Your task to perform on an android device: Clear the shopping cart on bestbuy.com. Search for "razer huntsman" on bestbuy.com, select the first entry, add it to the cart, then select checkout. Image 0: 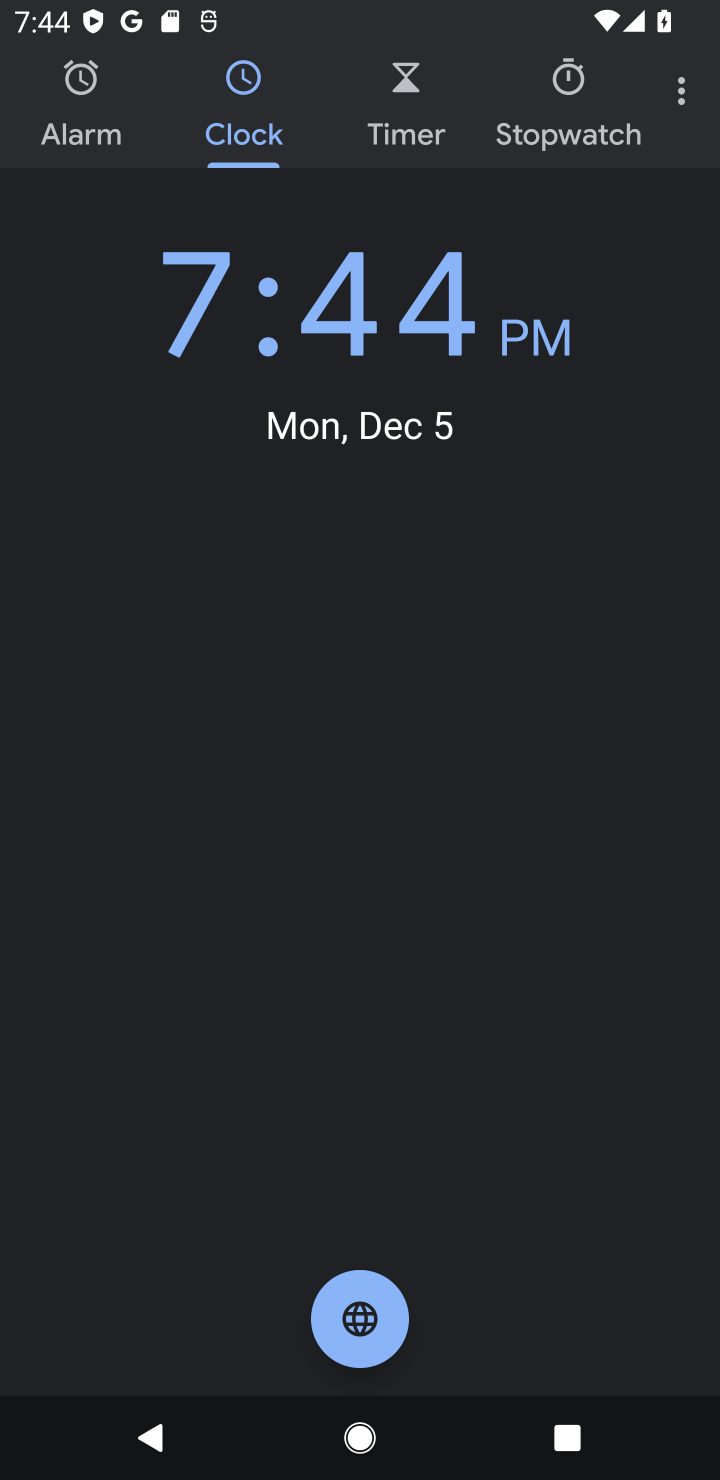
Step 0: press home button
Your task to perform on an android device: Clear the shopping cart on bestbuy.com. Search for "razer huntsman" on bestbuy.com, select the first entry, add it to the cart, then select checkout. Image 1: 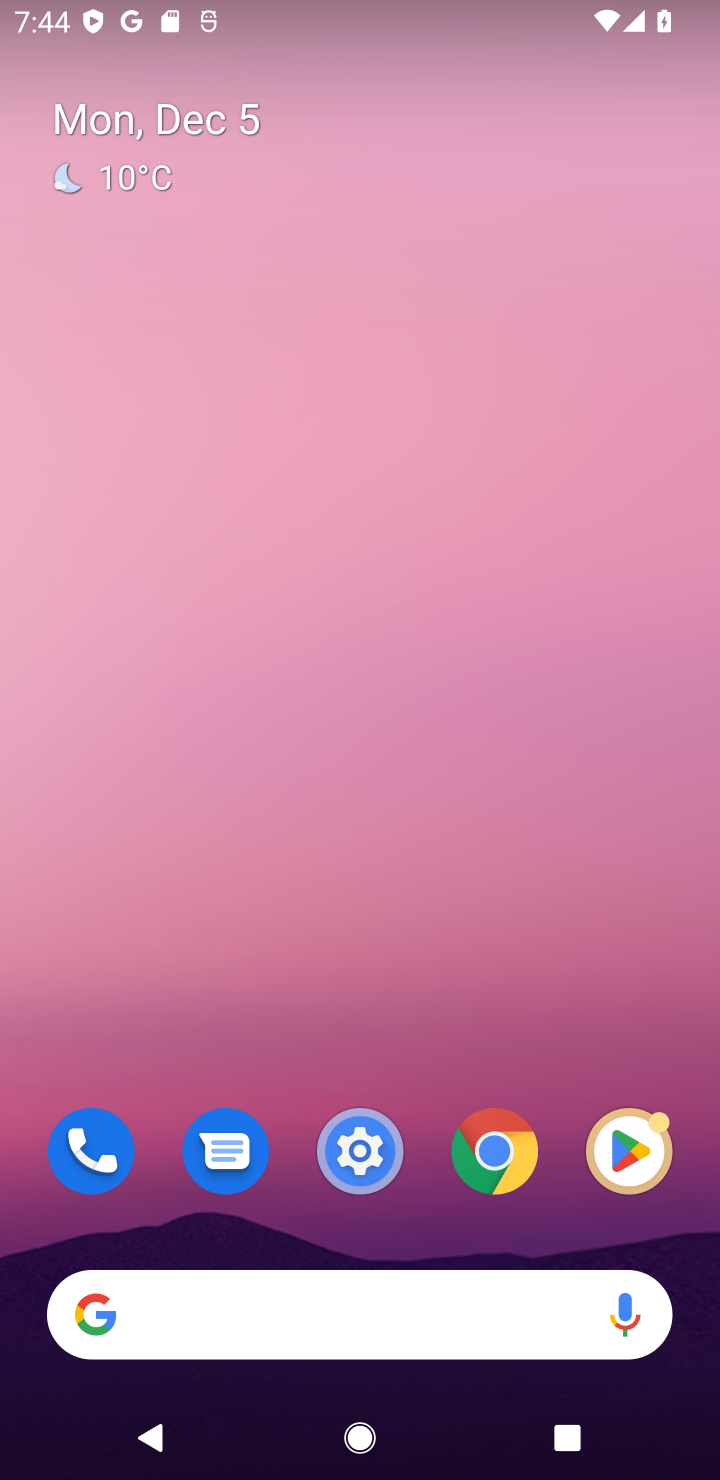
Step 1: click (343, 1327)
Your task to perform on an android device: Clear the shopping cart on bestbuy.com. Search for "razer huntsman" on bestbuy.com, select the first entry, add it to the cart, then select checkout. Image 2: 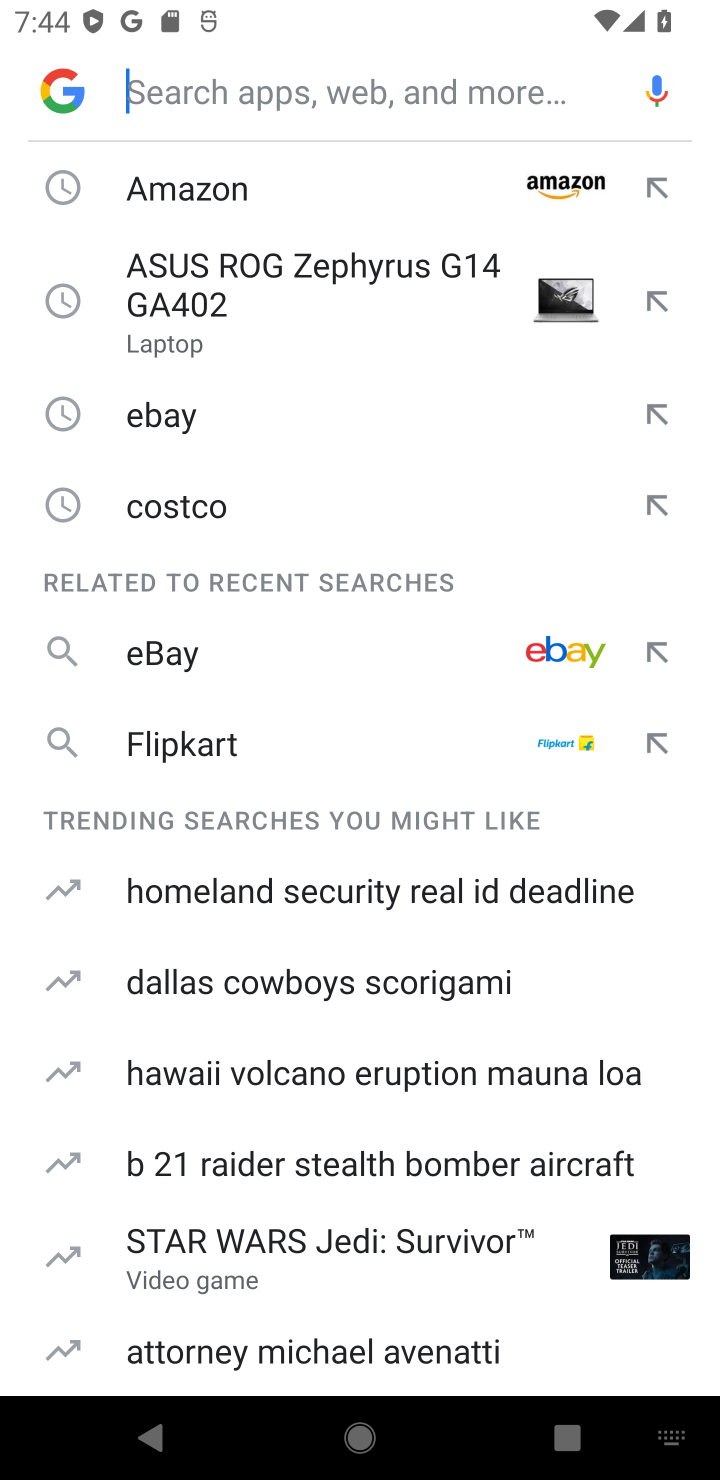
Step 2: type "bestbuiy"
Your task to perform on an android device: Clear the shopping cart on bestbuy.com. Search for "razer huntsman" on bestbuy.com, select the first entry, add it to the cart, then select checkout. Image 3: 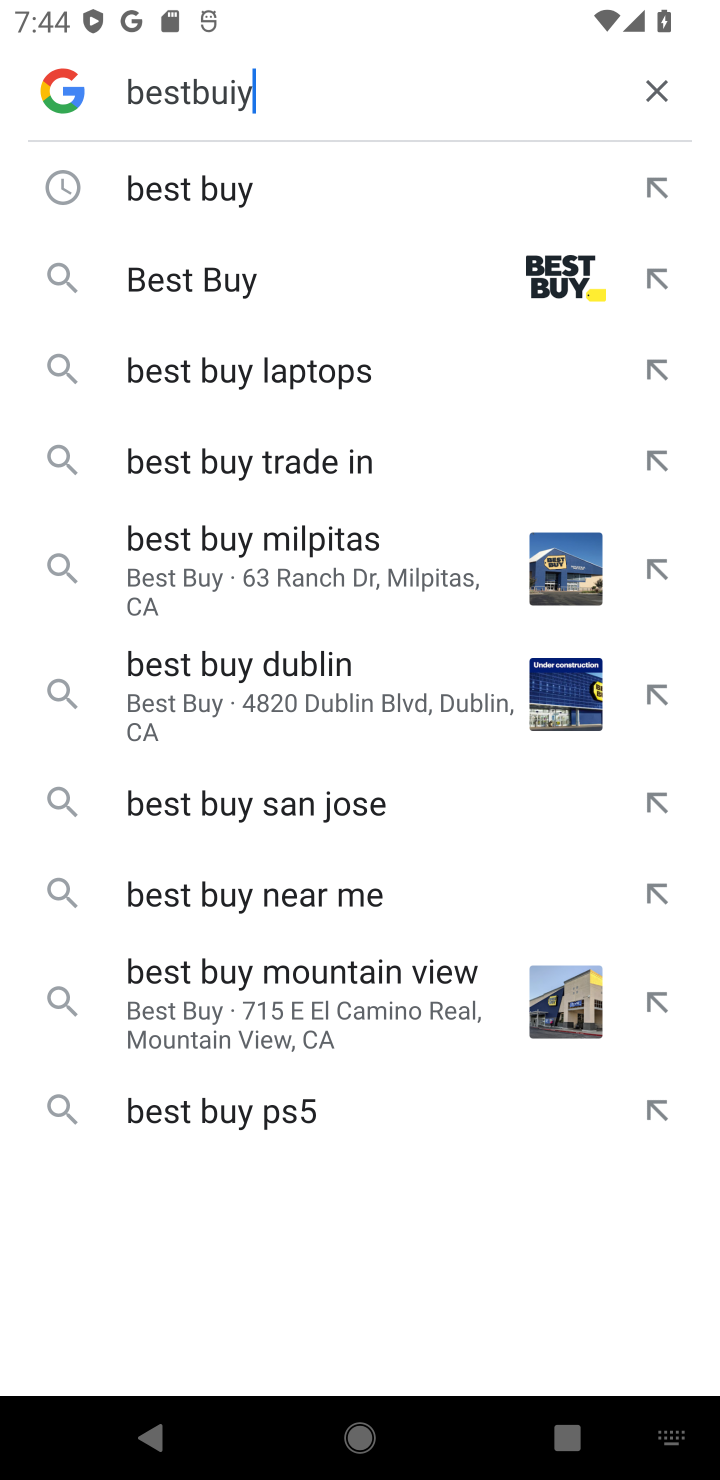
Step 3: click (328, 274)
Your task to perform on an android device: Clear the shopping cart on bestbuy.com. Search for "razer huntsman" on bestbuy.com, select the first entry, add it to the cart, then select checkout. Image 4: 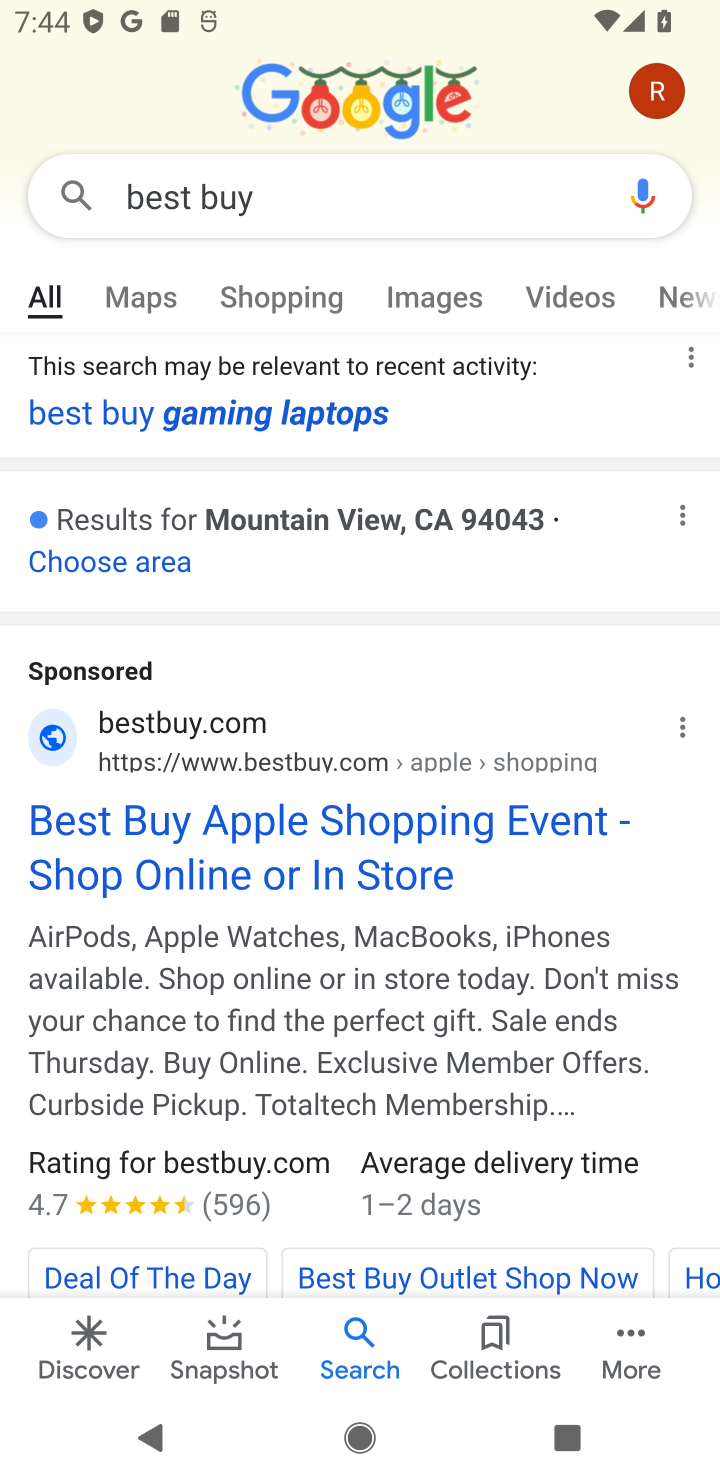
Step 4: click (290, 864)
Your task to perform on an android device: Clear the shopping cart on bestbuy.com. Search for "razer huntsman" on bestbuy.com, select the first entry, add it to the cart, then select checkout. Image 5: 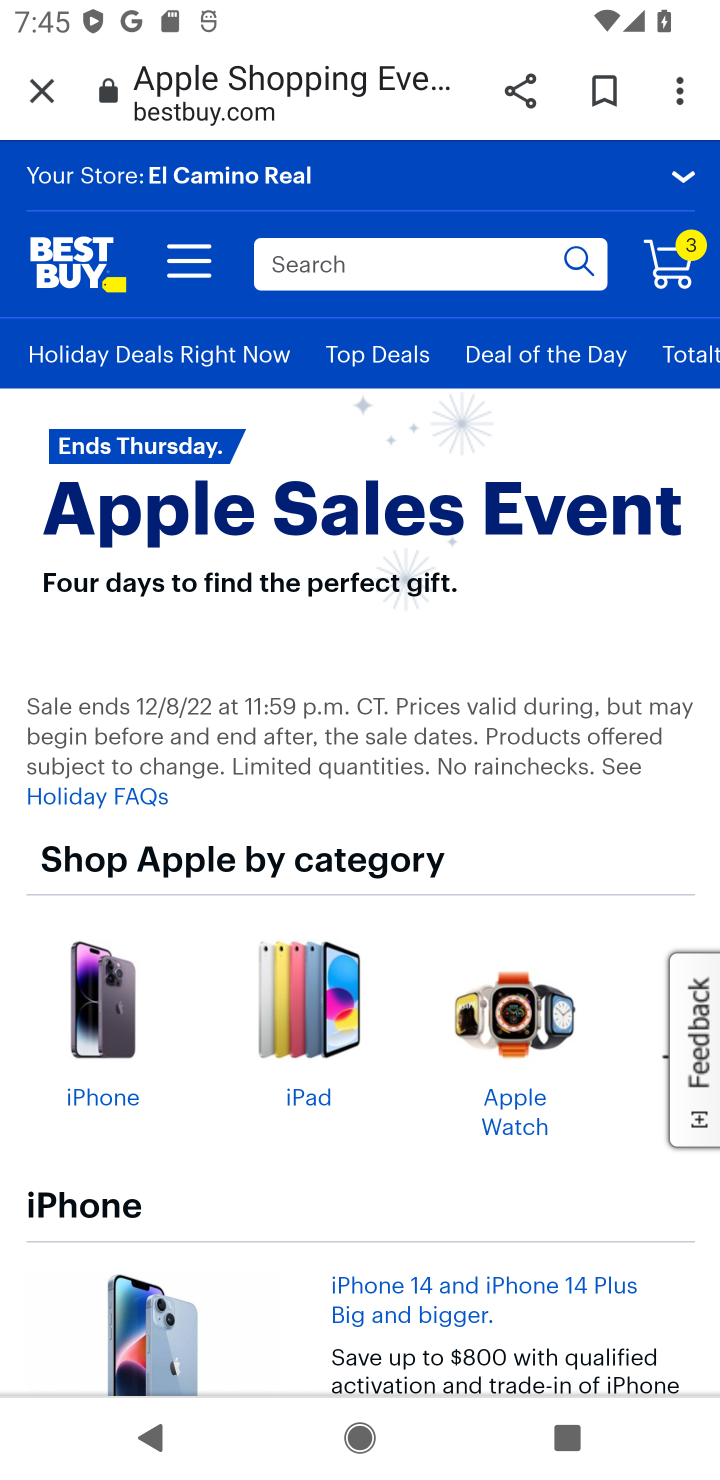
Step 5: click (306, 275)
Your task to perform on an android device: Clear the shopping cart on bestbuy.com. Search for "razer huntsman" on bestbuy.com, select the first entry, add it to the cart, then select checkout. Image 6: 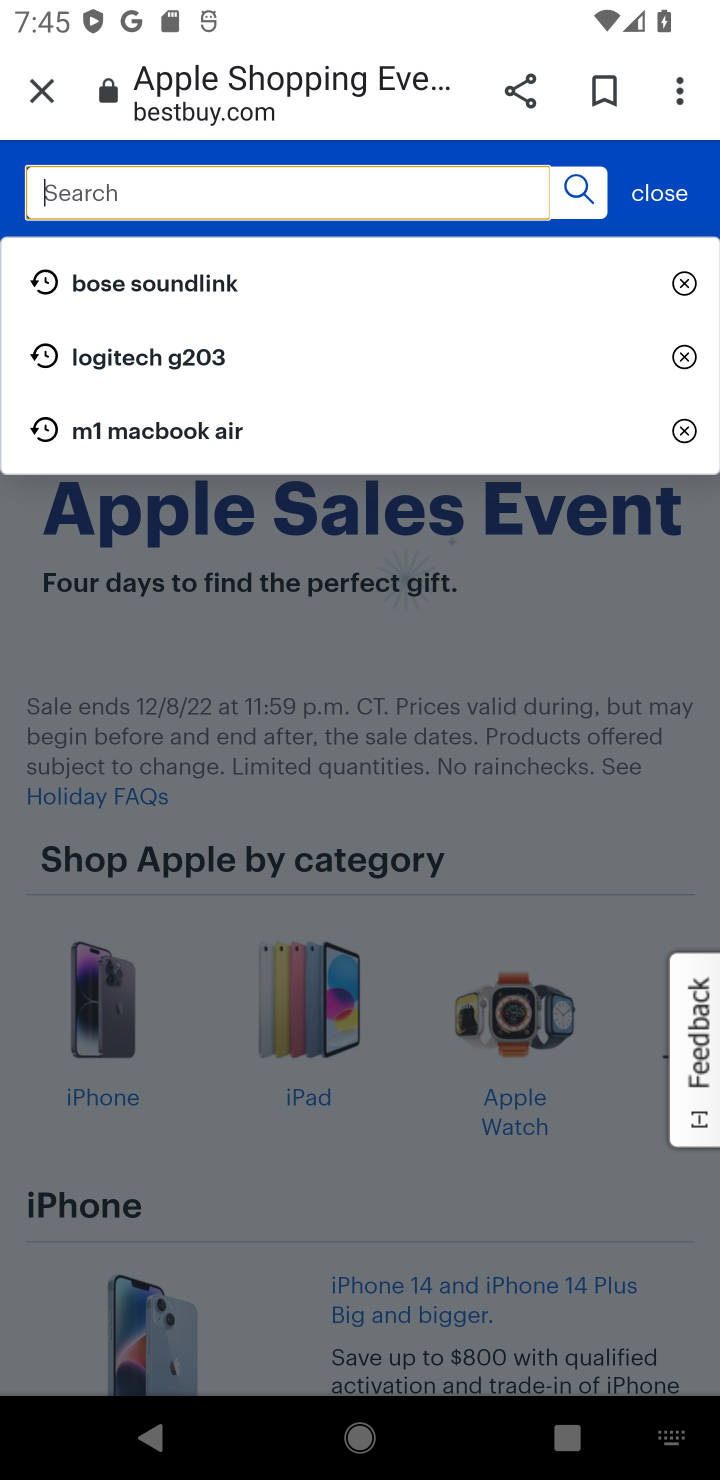
Step 6: type "razer huntsman"
Your task to perform on an android device: Clear the shopping cart on bestbuy.com. Search for "razer huntsman" on bestbuy.com, select the first entry, add it to the cart, then select checkout. Image 7: 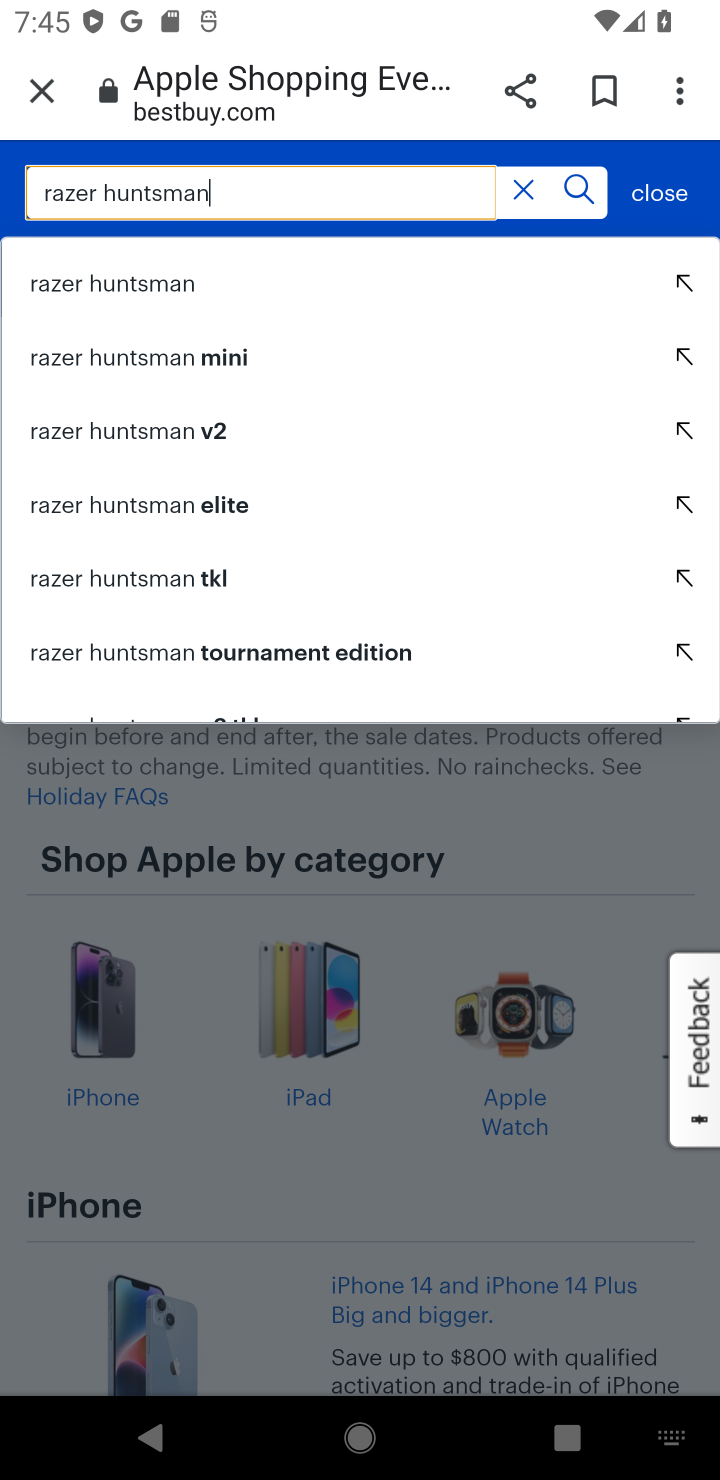
Step 7: click (100, 308)
Your task to perform on an android device: Clear the shopping cart on bestbuy.com. Search for "razer huntsman" on bestbuy.com, select the first entry, add it to the cart, then select checkout. Image 8: 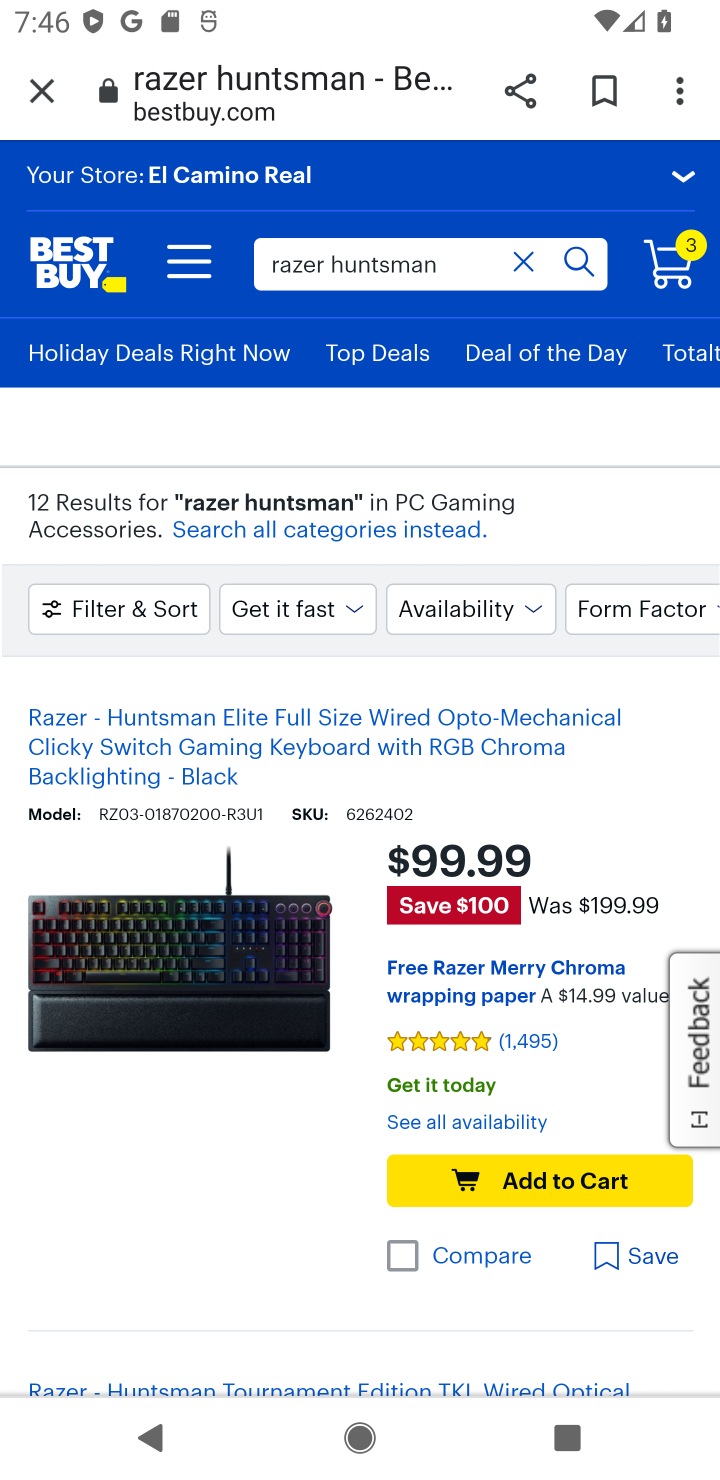
Step 8: click (473, 1183)
Your task to perform on an android device: Clear the shopping cart on bestbuy.com. Search for "razer huntsman" on bestbuy.com, select the first entry, add it to the cart, then select checkout. Image 9: 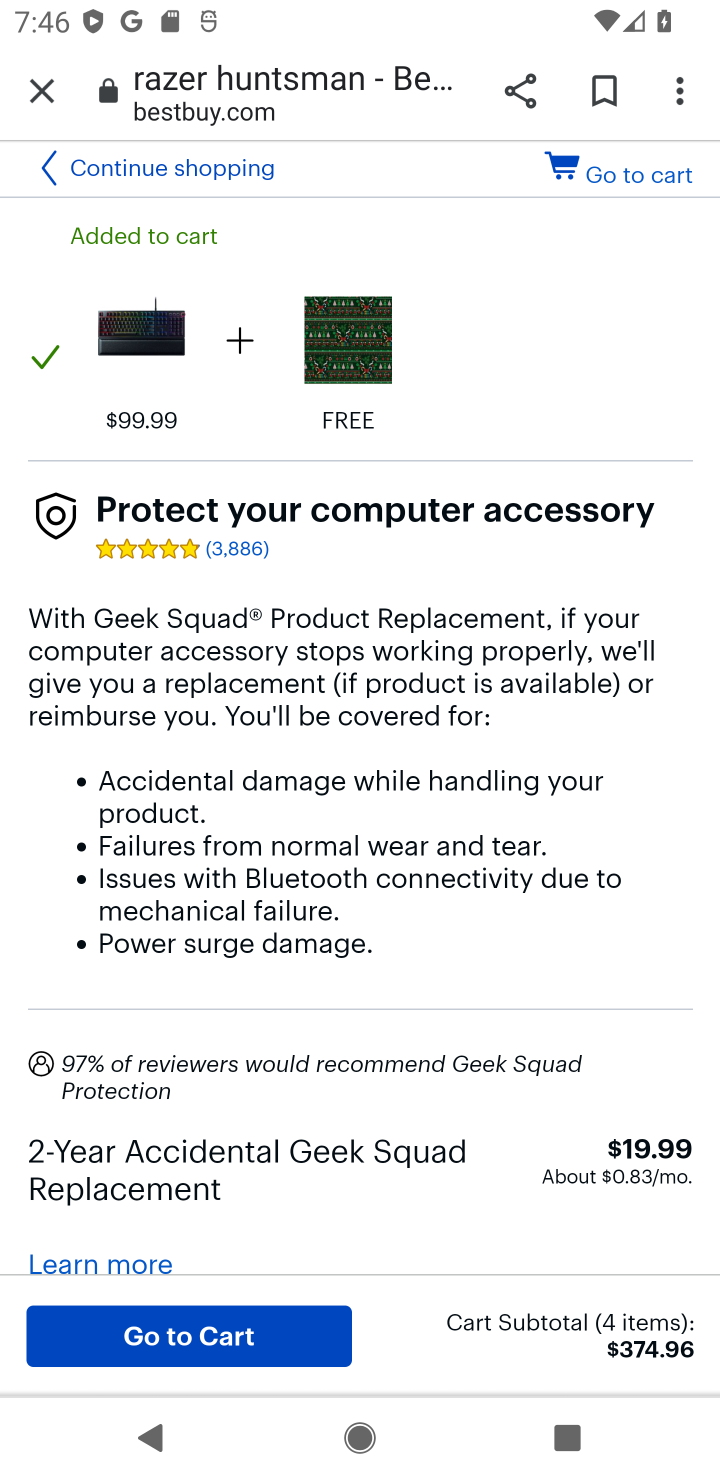
Step 9: task complete